Your task to perform on an android device: add a contact in the contacts app Image 0: 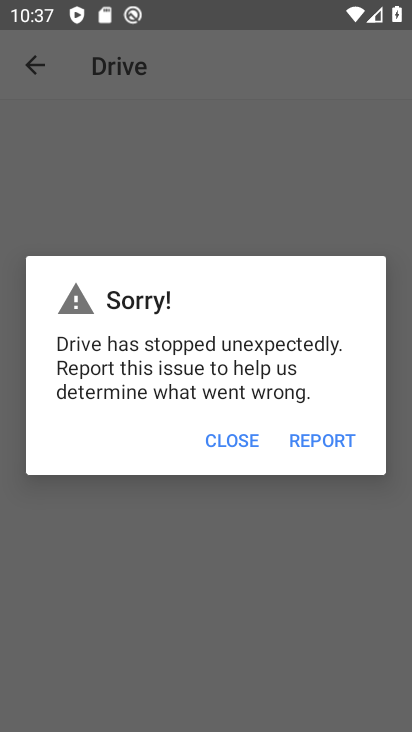
Step 0: press back button
Your task to perform on an android device: add a contact in the contacts app Image 1: 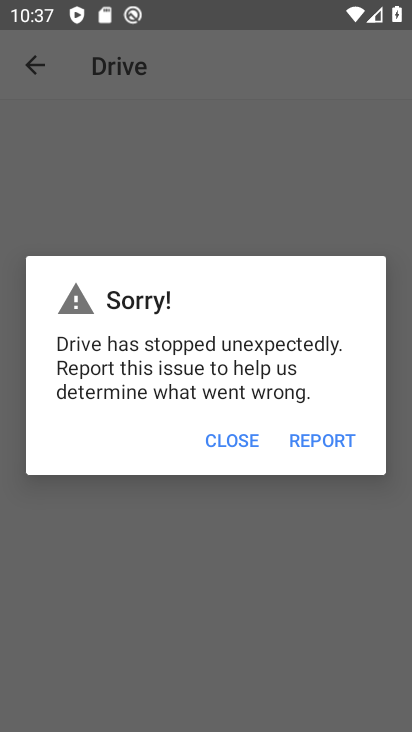
Step 1: press back button
Your task to perform on an android device: add a contact in the contacts app Image 2: 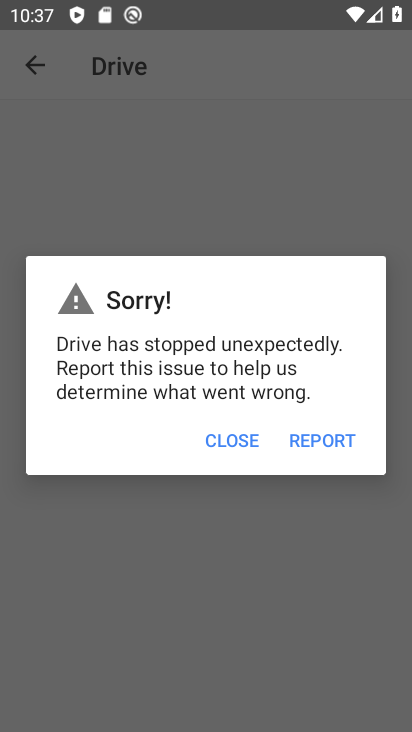
Step 2: press home button
Your task to perform on an android device: add a contact in the contacts app Image 3: 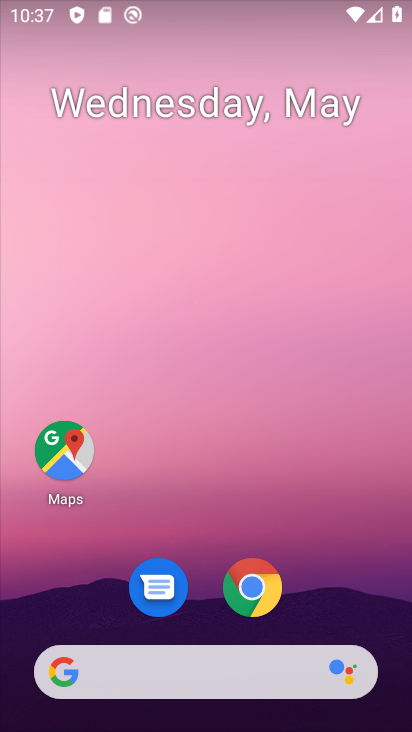
Step 3: drag from (210, 620) to (319, 67)
Your task to perform on an android device: add a contact in the contacts app Image 4: 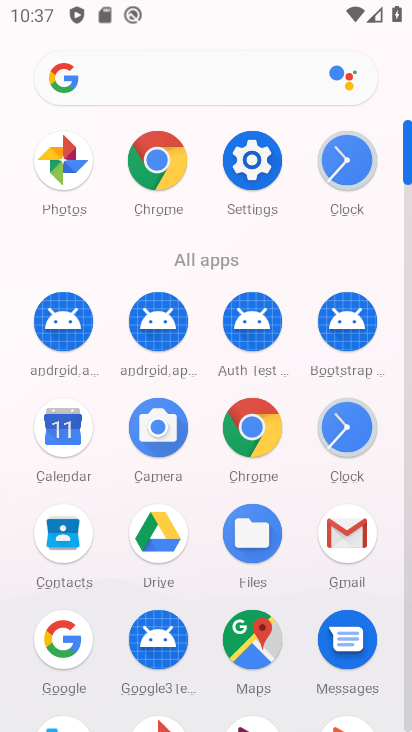
Step 4: click (62, 523)
Your task to perform on an android device: add a contact in the contacts app Image 5: 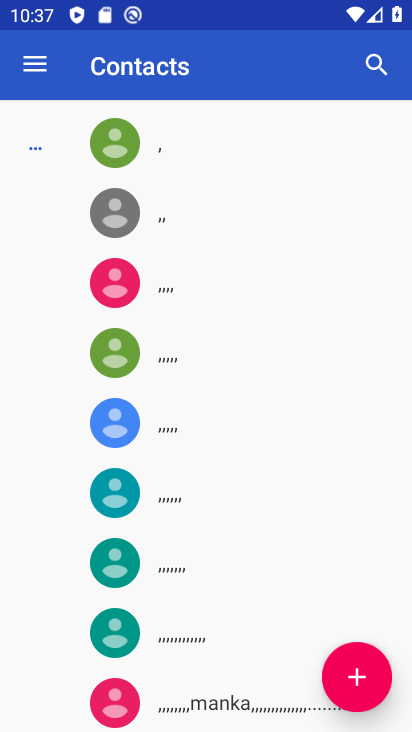
Step 5: click (338, 669)
Your task to perform on an android device: add a contact in the contacts app Image 6: 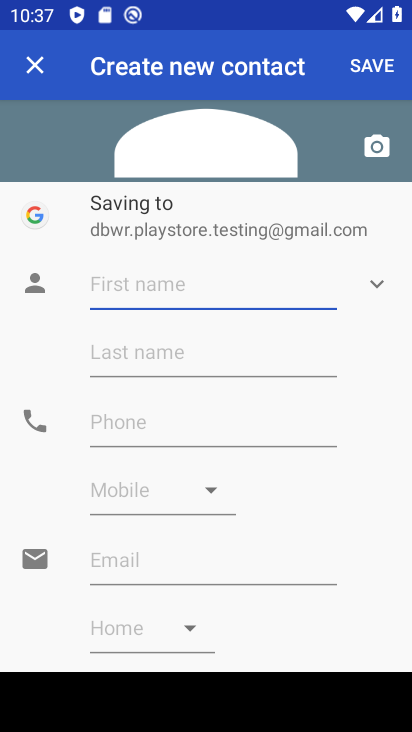
Step 6: click (152, 287)
Your task to perform on an android device: add a contact in the contacts app Image 7: 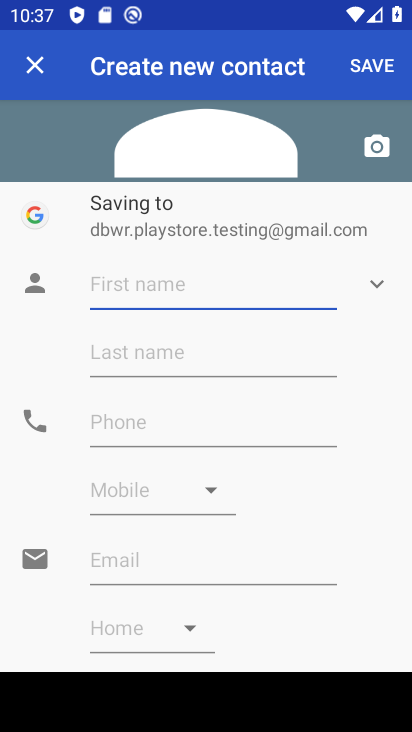
Step 7: type "fvfb"
Your task to perform on an android device: add a contact in the contacts app Image 8: 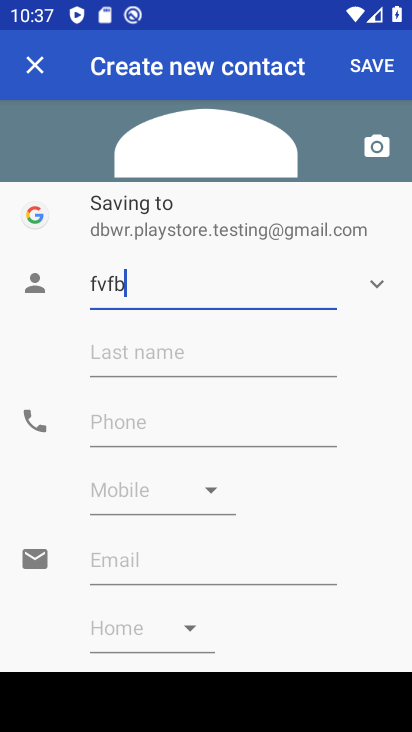
Step 8: click (95, 435)
Your task to perform on an android device: add a contact in the contacts app Image 9: 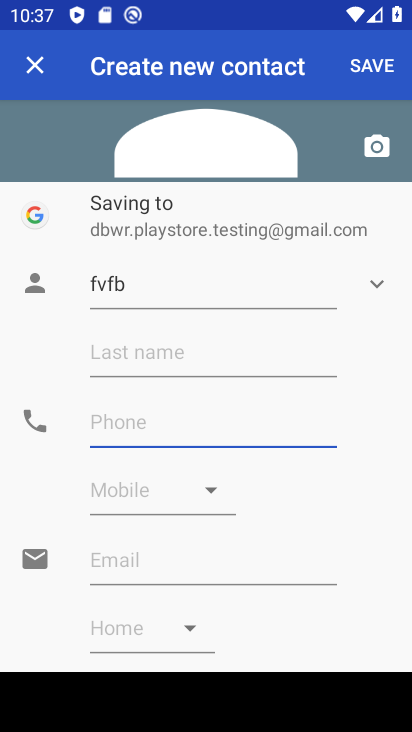
Step 9: type "676"
Your task to perform on an android device: add a contact in the contacts app Image 10: 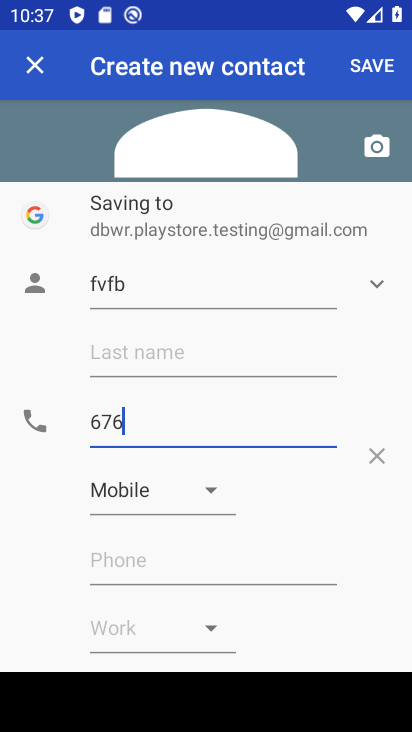
Step 10: click (360, 56)
Your task to perform on an android device: add a contact in the contacts app Image 11: 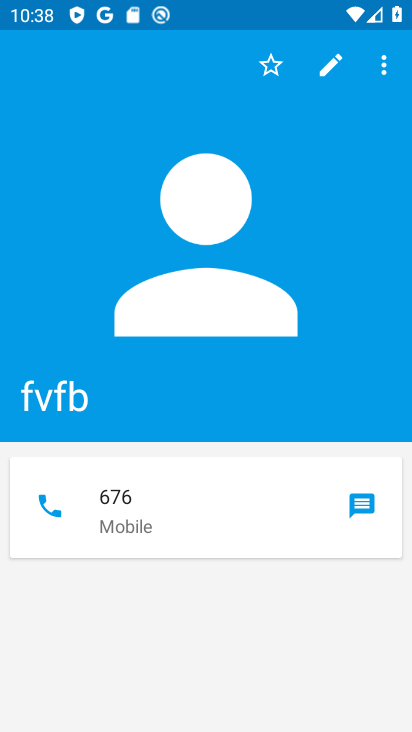
Step 11: task complete